Your task to perform on an android device: snooze an email in the gmail app Image 0: 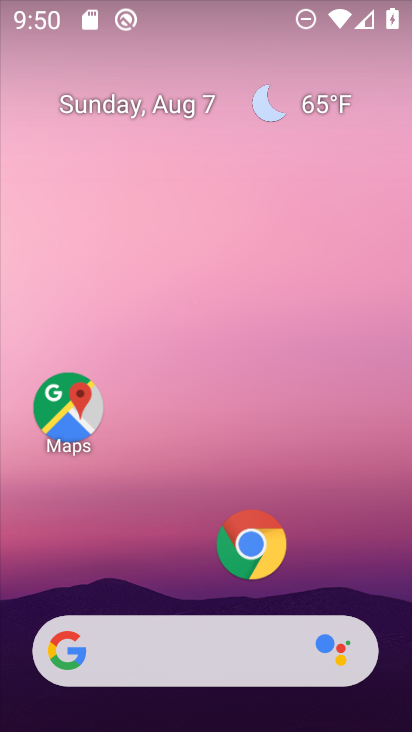
Step 0: drag from (171, 609) to (129, 126)
Your task to perform on an android device: snooze an email in the gmail app Image 1: 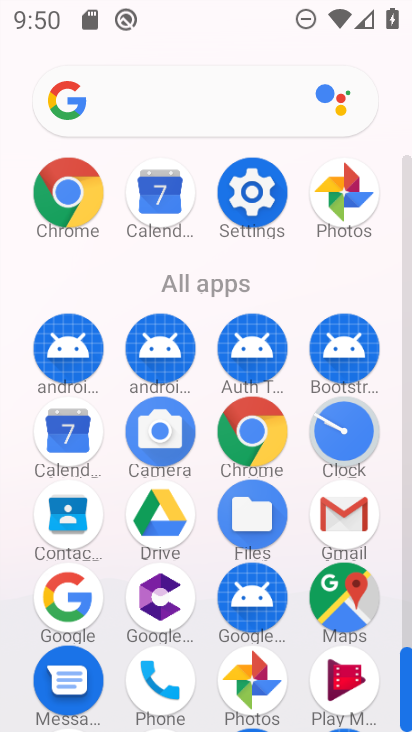
Step 1: click (337, 510)
Your task to perform on an android device: snooze an email in the gmail app Image 2: 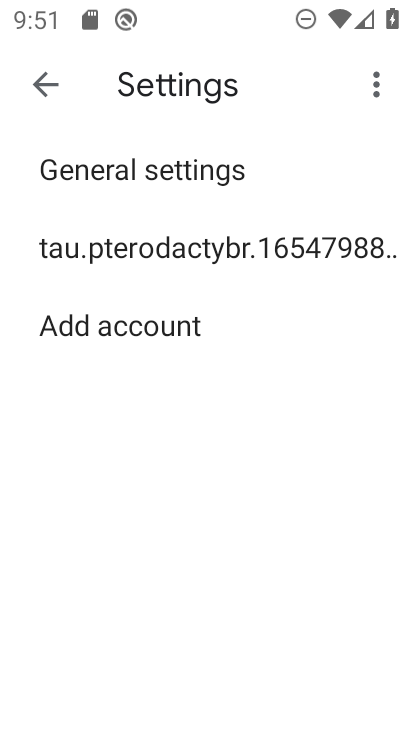
Step 2: click (33, 93)
Your task to perform on an android device: snooze an email in the gmail app Image 3: 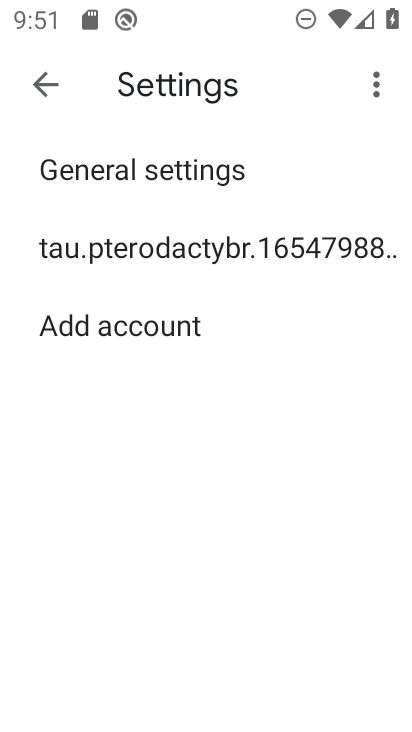
Step 3: click (35, 89)
Your task to perform on an android device: snooze an email in the gmail app Image 4: 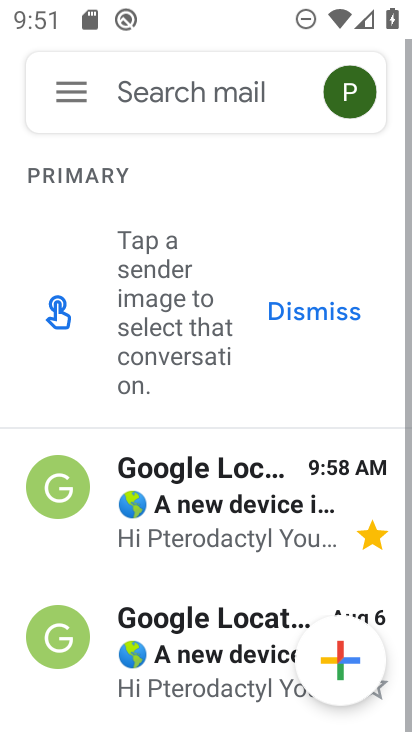
Step 4: drag from (75, 93) to (88, 488)
Your task to perform on an android device: snooze an email in the gmail app Image 5: 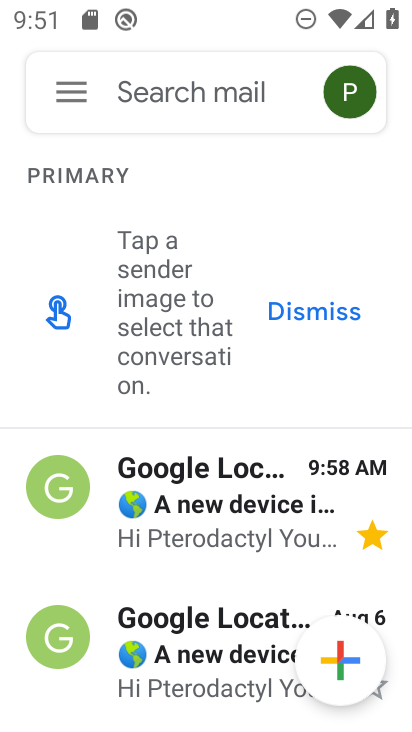
Step 5: click (79, 104)
Your task to perform on an android device: snooze an email in the gmail app Image 6: 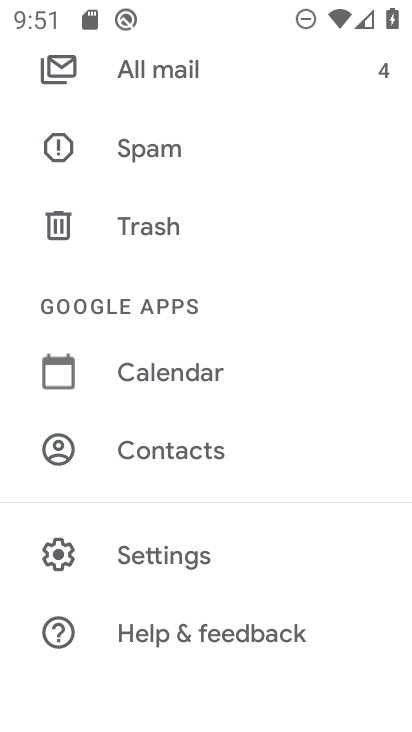
Step 6: drag from (189, 202) to (183, 571)
Your task to perform on an android device: snooze an email in the gmail app Image 7: 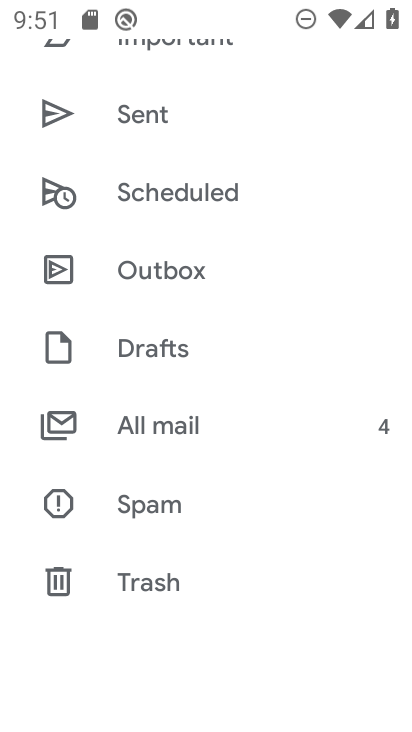
Step 7: drag from (155, 136) to (154, 440)
Your task to perform on an android device: snooze an email in the gmail app Image 8: 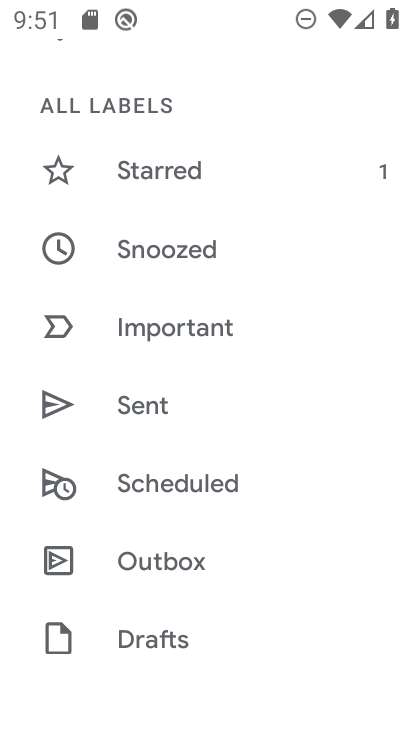
Step 8: click (204, 244)
Your task to perform on an android device: snooze an email in the gmail app Image 9: 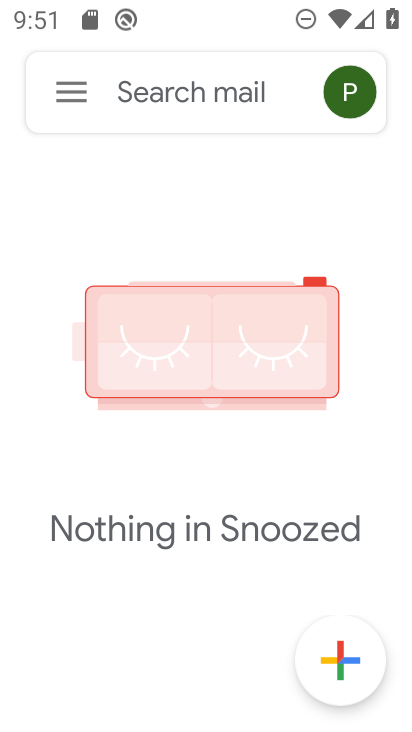
Step 9: task complete